Your task to perform on an android device: Go to display settings Image 0: 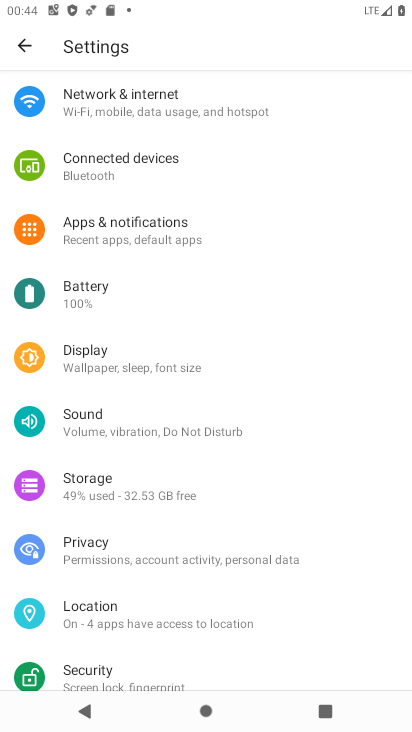
Step 0: click (78, 351)
Your task to perform on an android device: Go to display settings Image 1: 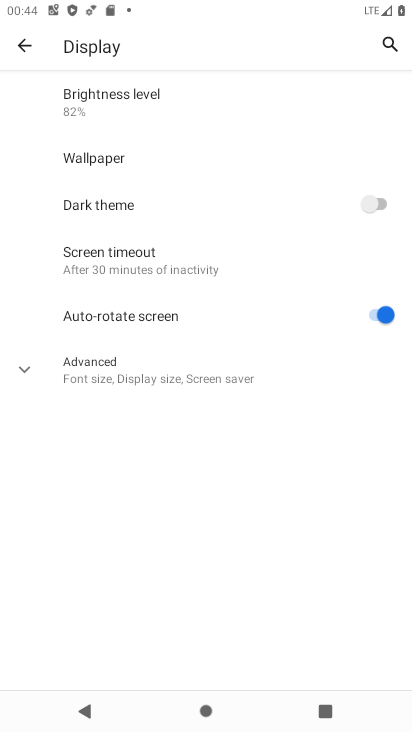
Step 1: task complete